Your task to perform on an android device: turn off wifi Image 0: 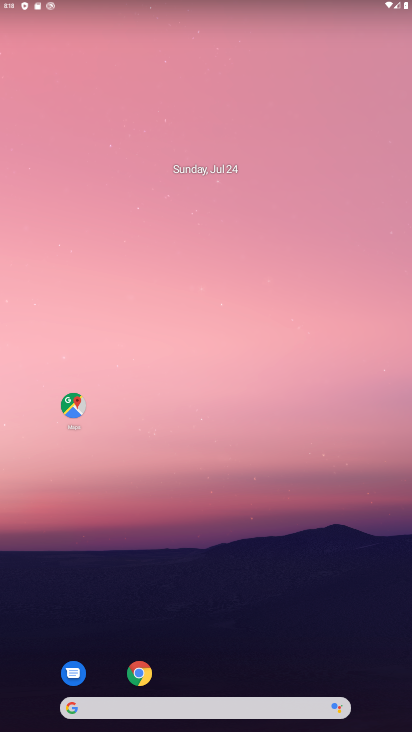
Step 0: drag from (212, 663) to (212, 184)
Your task to perform on an android device: turn off wifi Image 1: 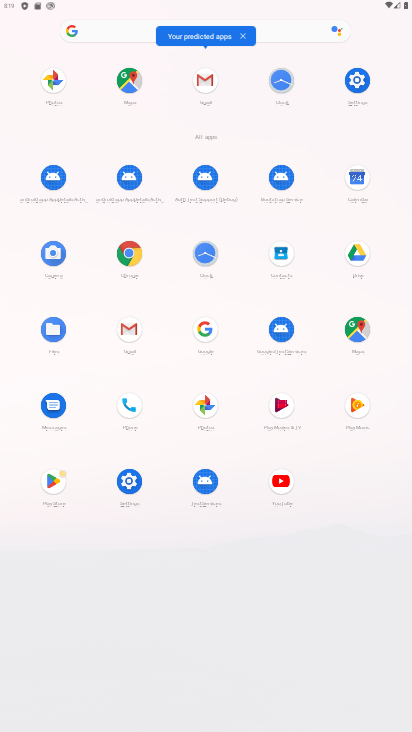
Step 1: click (359, 72)
Your task to perform on an android device: turn off wifi Image 2: 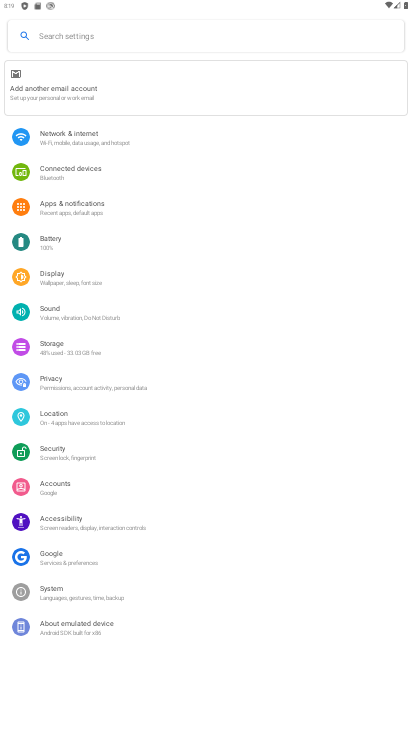
Step 2: click (123, 132)
Your task to perform on an android device: turn off wifi Image 3: 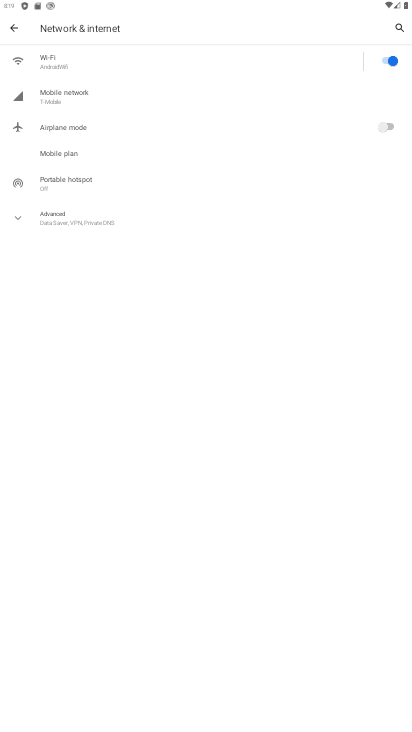
Step 3: click (394, 59)
Your task to perform on an android device: turn off wifi Image 4: 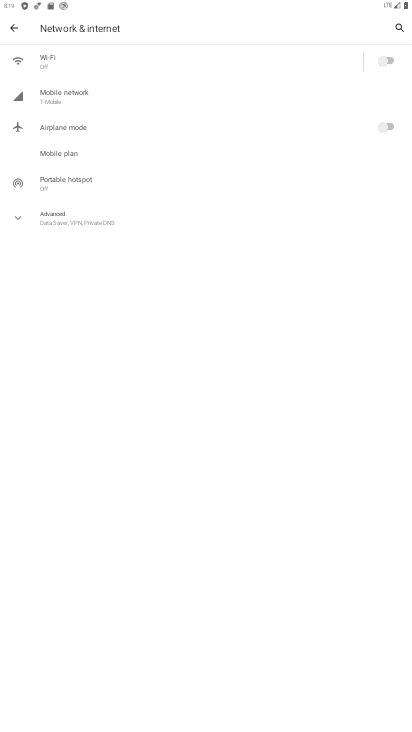
Step 4: task complete